Your task to perform on an android device: see creations saved in the google photos Image 0: 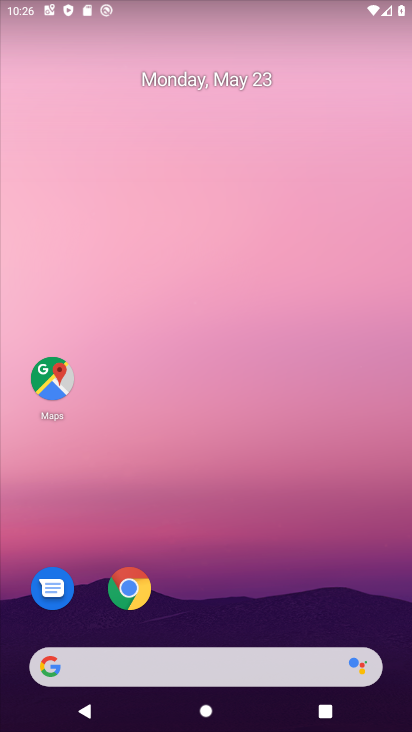
Step 0: drag from (235, 406) to (252, 79)
Your task to perform on an android device: see creations saved in the google photos Image 1: 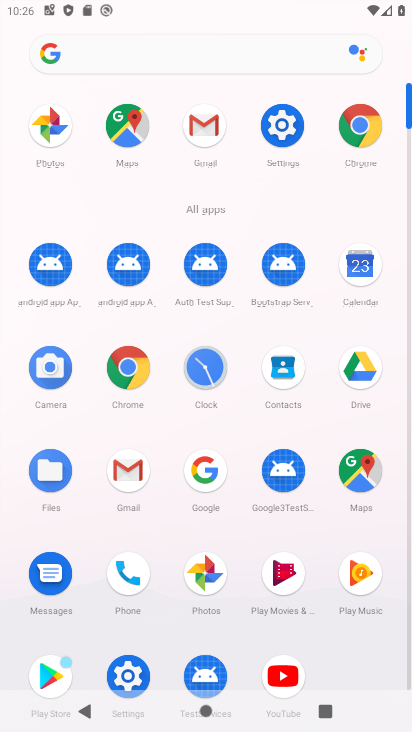
Step 1: click (203, 561)
Your task to perform on an android device: see creations saved in the google photos Image 2: 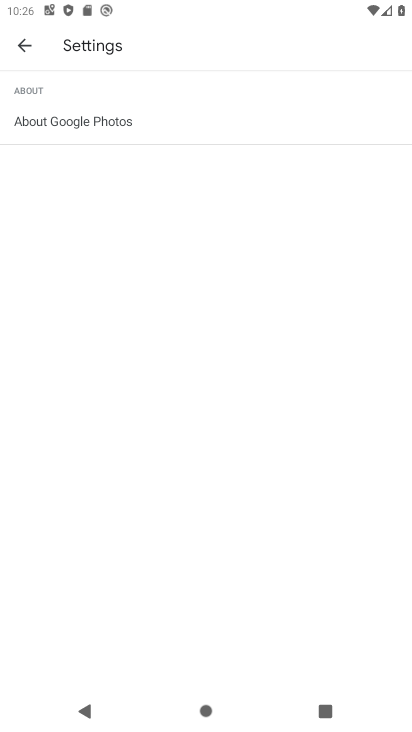
Step 2: click (4, 39)
Your task to perform on an android device: see creations saved in the google photos Image 3: 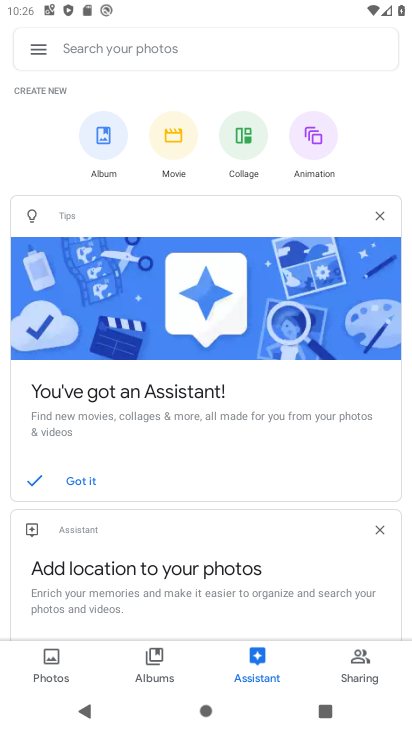
Step 3: task complete